Your task to perform on an android device: Clear the shopping cart on ebay. Add apple airpods pro to the cart on ebay, then select checkout. Image 0: 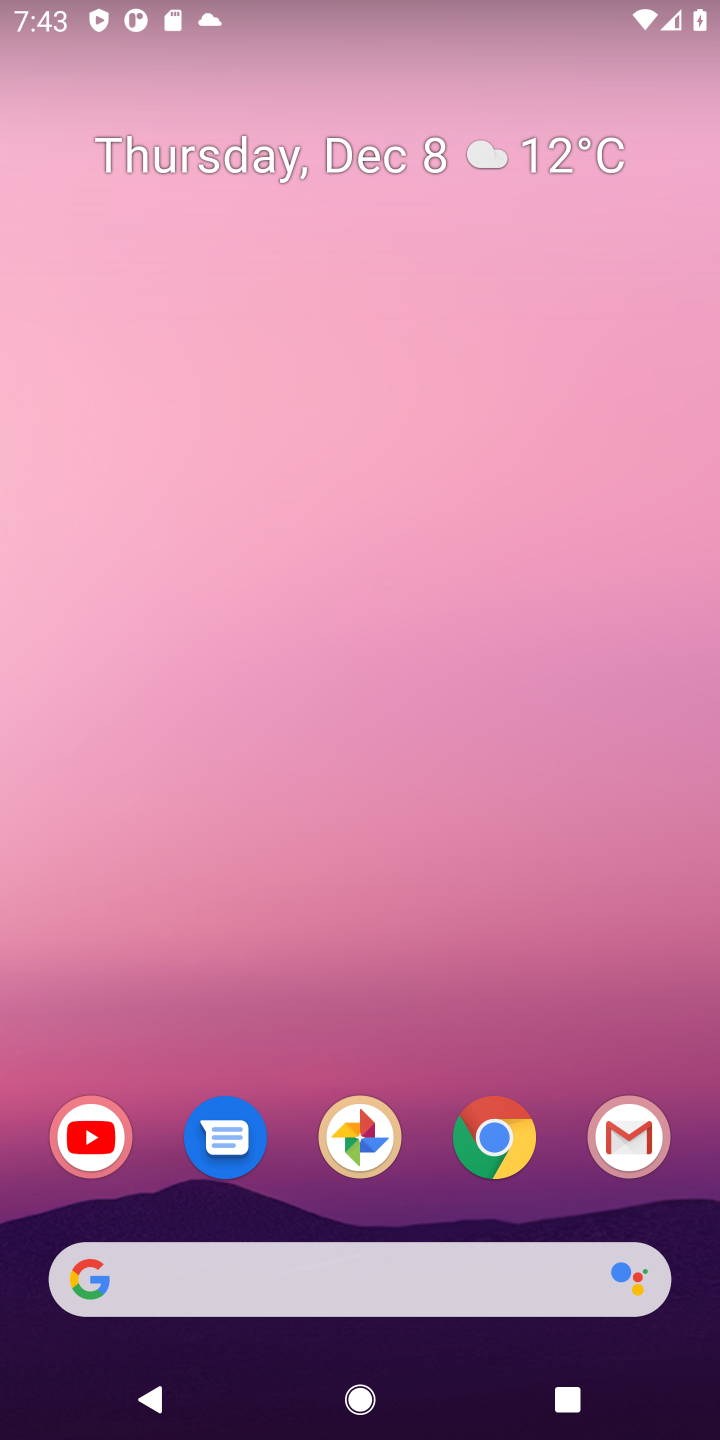
Step 0: click (498, 1168)
Your task to perform on an android device: Clear the shopping cart on ebay. Add apple airpods pro to the cart on ebay, then select checkout. Image 1: 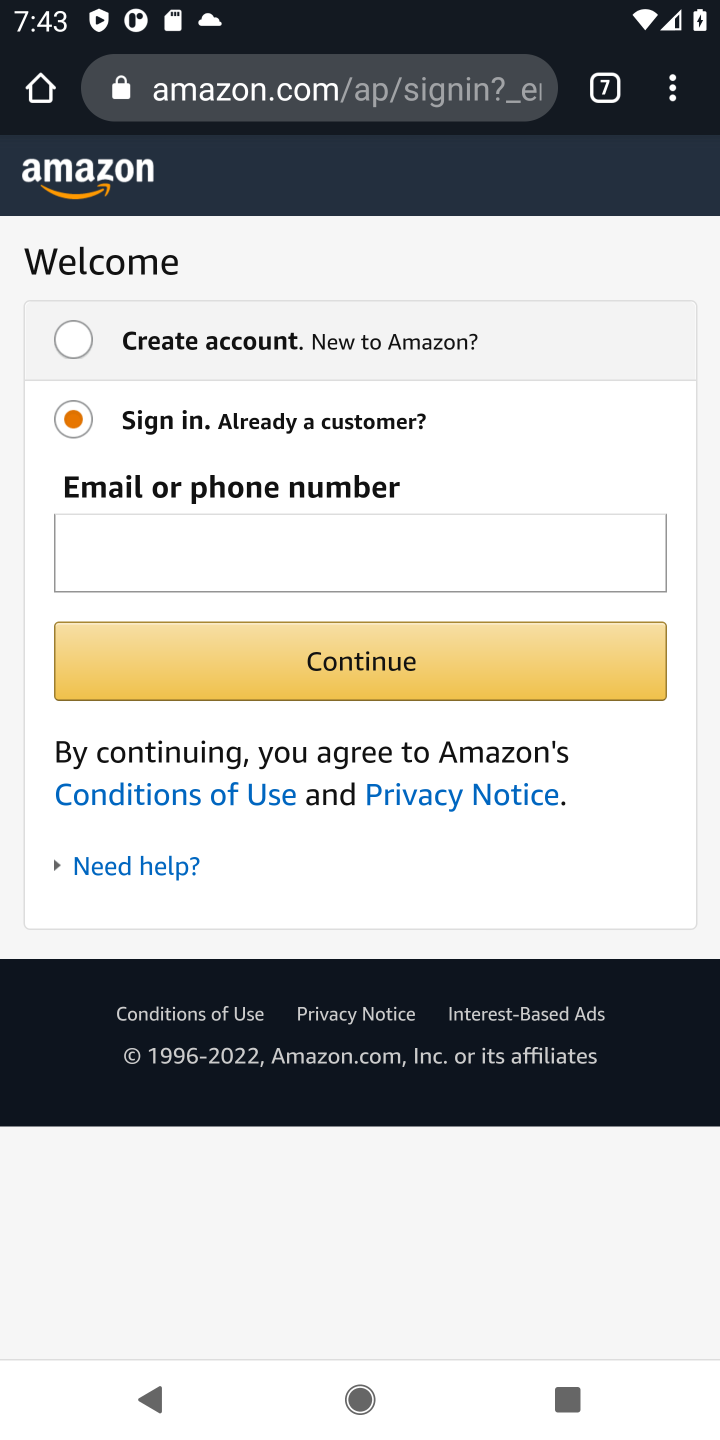
Step 1: press back button
Your task to perform on an android device: Clear the shopping cart on ebay. Add apple airpods pro to the cart on ebay, then select checkout. Image 2: 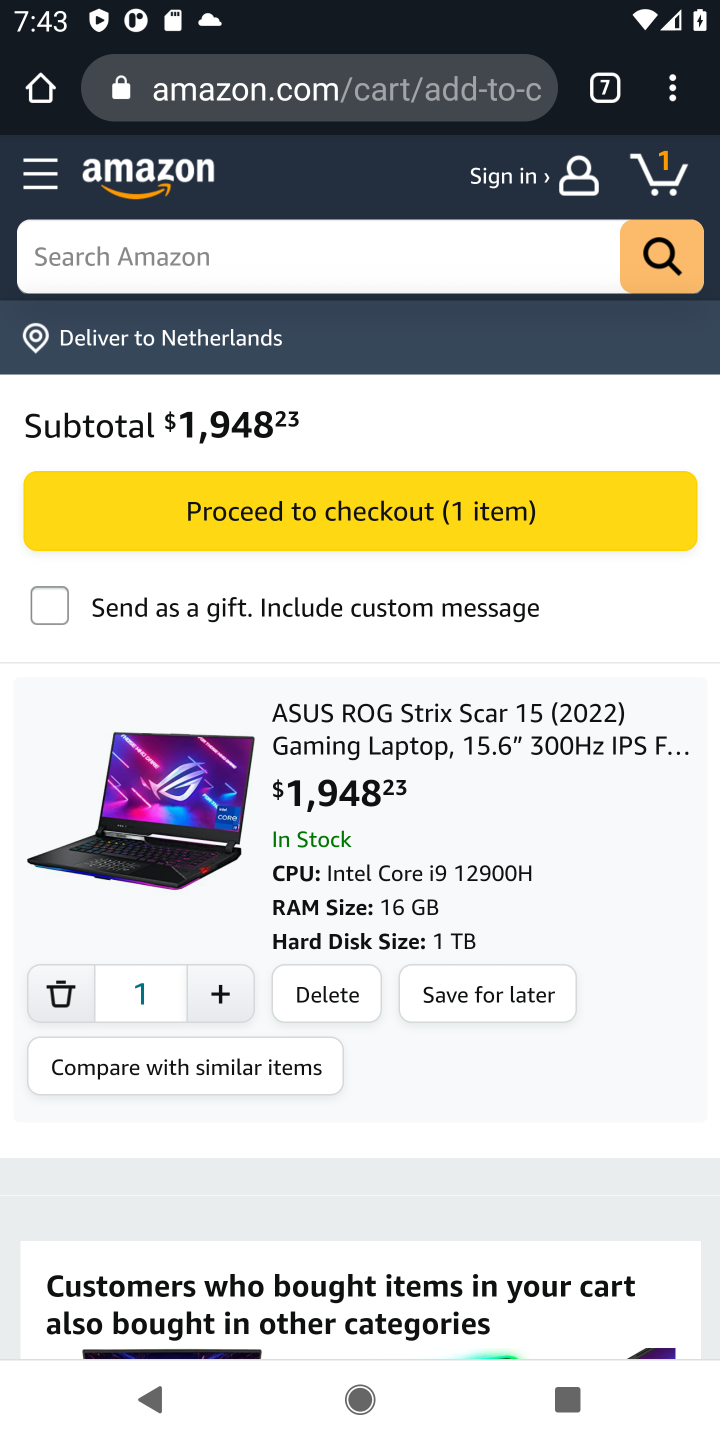
Step 2: click (608, 87)
Your task to perform on an android device: Clear the shopping cart on ebay. Add apple airpods pro to the cart on ebay, then select checkout. Image 3: 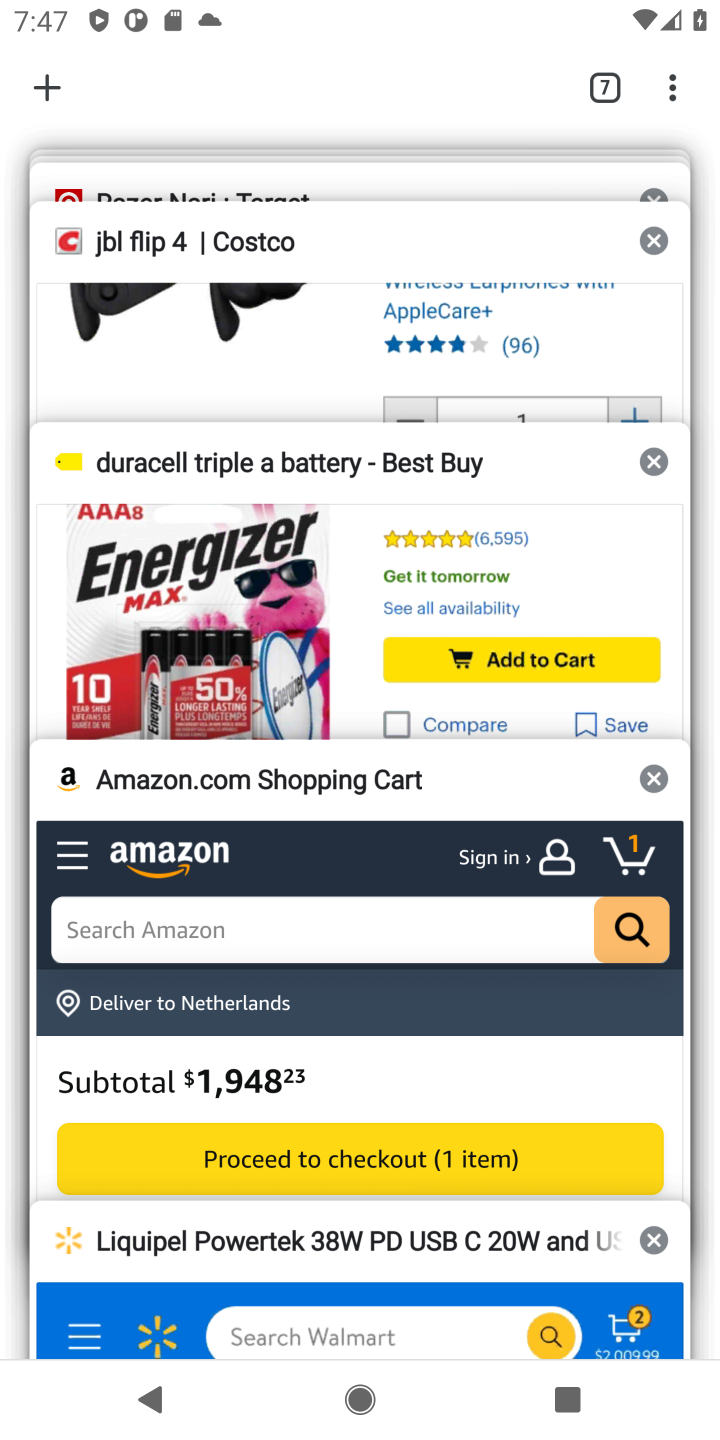
Step 3: click (214, 564)
Your task to perform on an android device: Clear the shopping cart on ebay. Add apple airpods pro to the cart on ebay, then select checkout. Image 4: 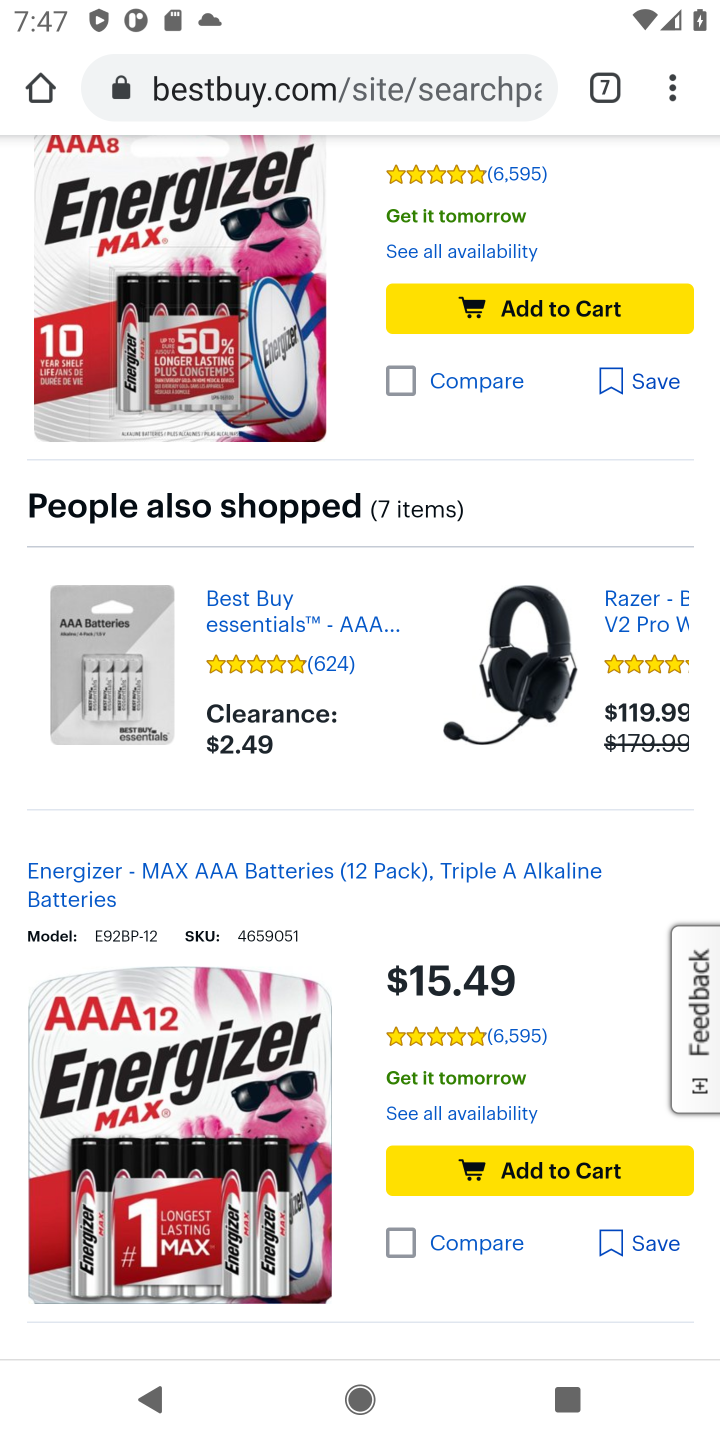
Step 4: click (596, 74)
Your task to perform on an android device: Clear the shopping cart on ebay. Add apple airpods pro to the cart on ebay, then select checkout. Image 5: 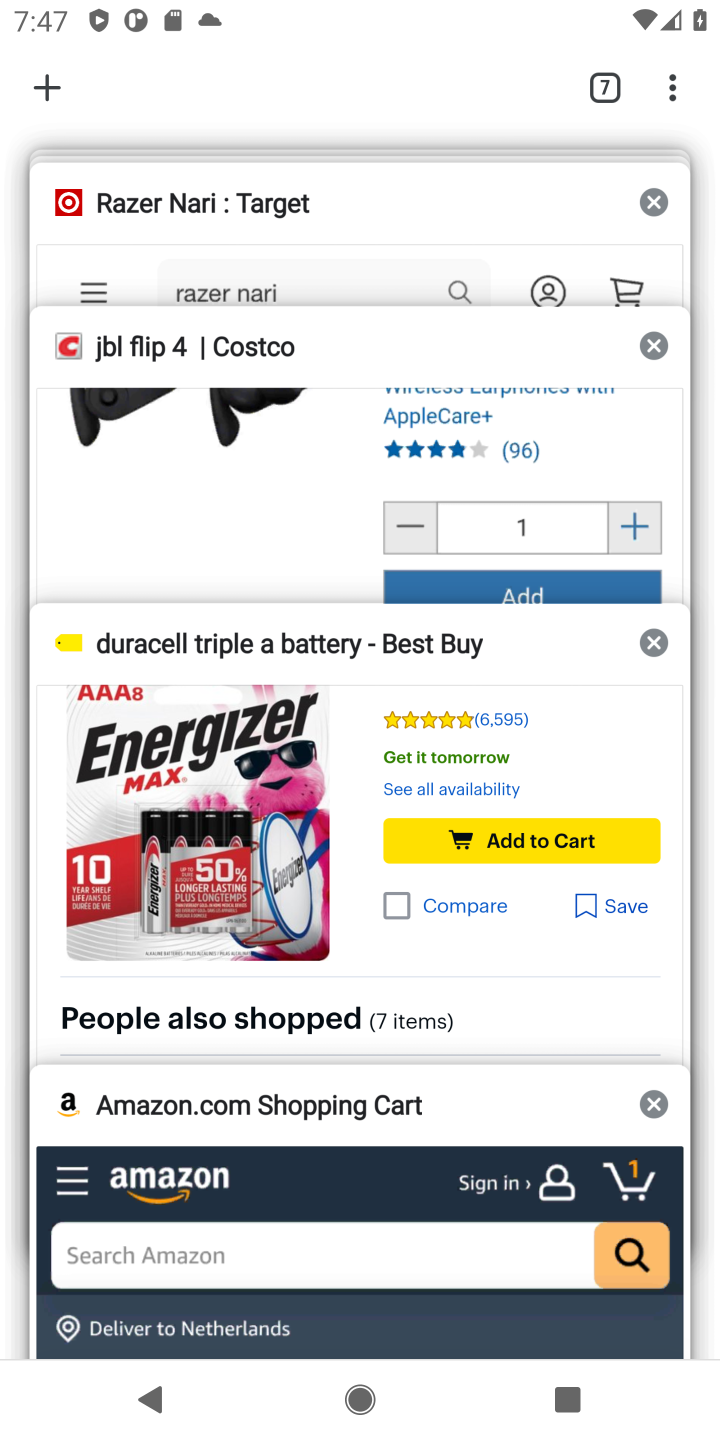
Step 5: click (363, 243)
Your task to perform on an android device: Clear the shopping cart on ebay. Add apple airpods pro to the cart on ebay, then select checkout. Image 6: 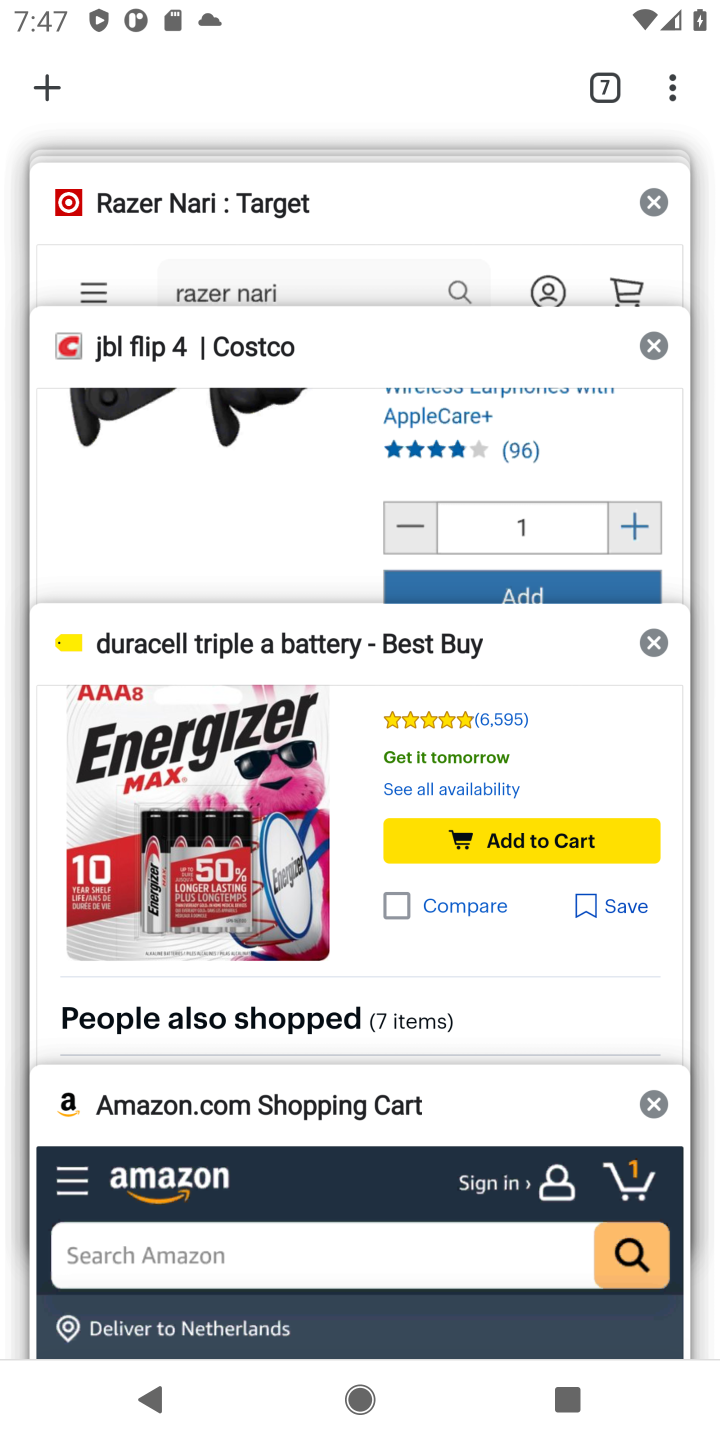
Step 6: drag from (363, 243) to (284, 1003)
Your task to perform on an android device: Clear the shopping cart on ebay. Add apple airpods pro to the cart on ebay, then select checkout. Image 7: 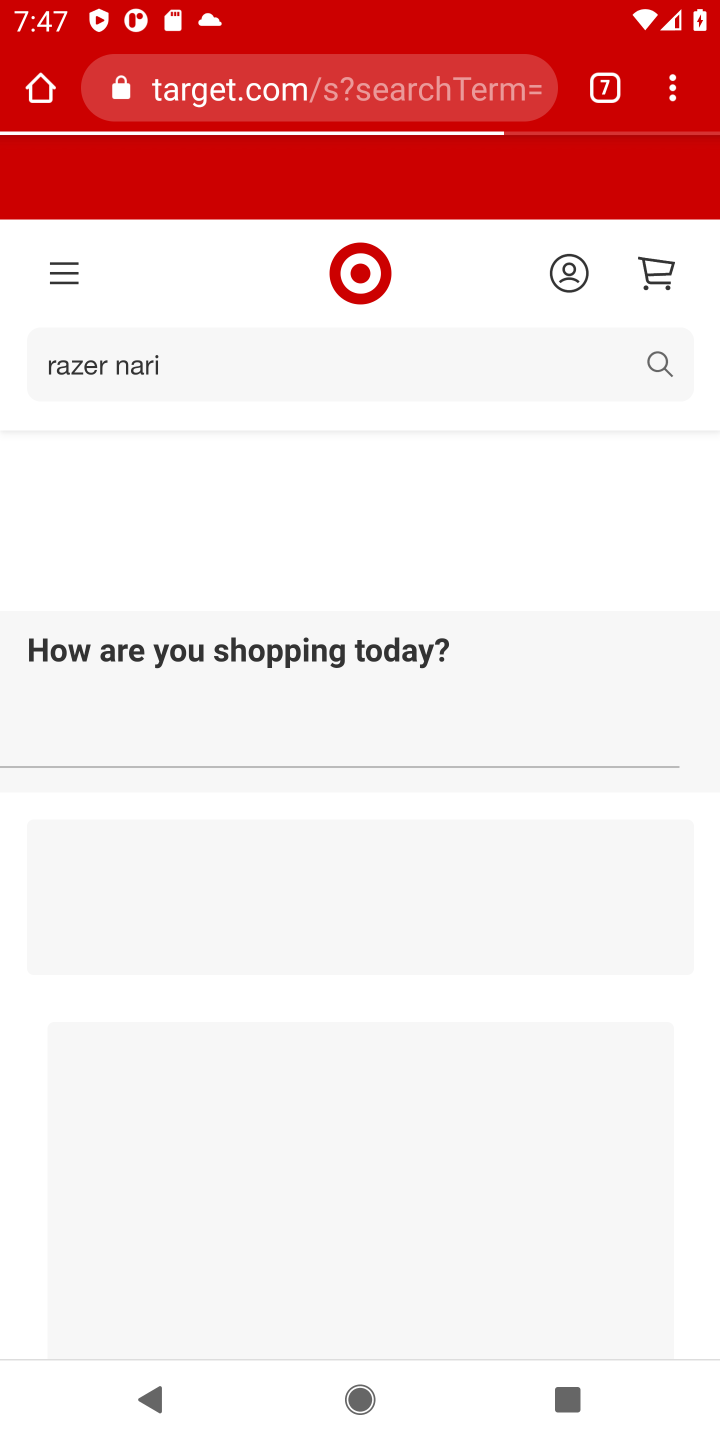
Step 7: click (612, 84)
Your task to perform on an android device: Clear the shopping cart on ebay. Add apple airpods pro to the cart on ebay, then select checkout. Image 8: 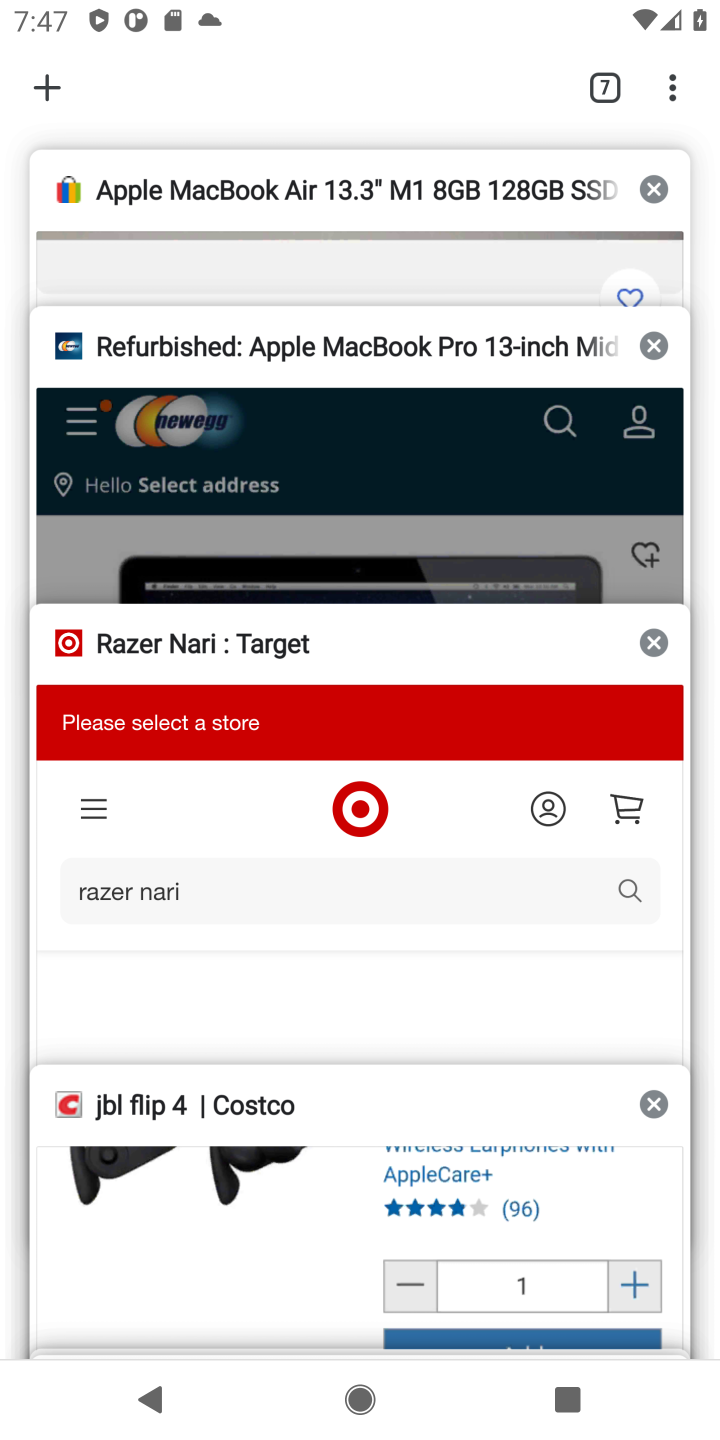
Step 8: click (436, 244)
Your task to perform on an android device: Clear the shopping cart on ebay. Add apple airpods pro to the cart on ebay, then select checkout. Image 9: 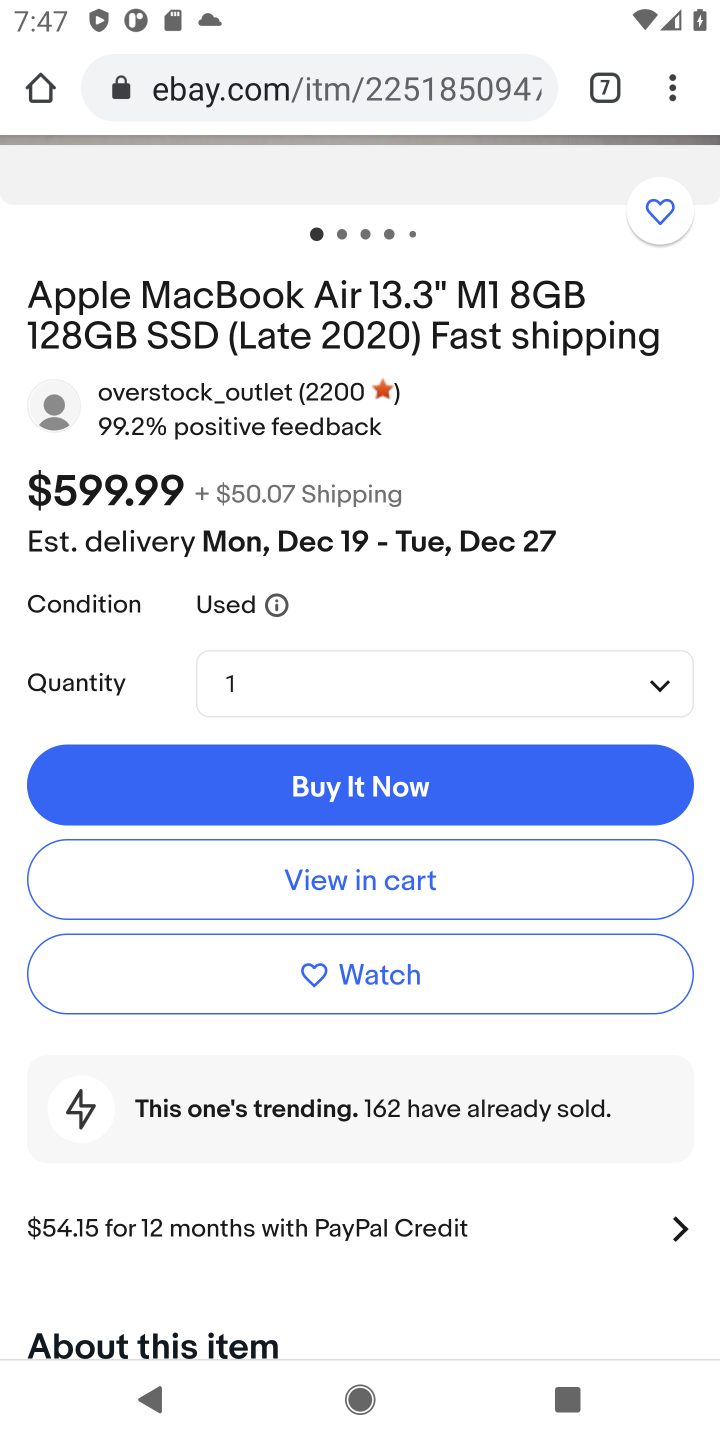
Step 9: click (396, 875)
Your task to perform on an android device: Clear the shopping cart on ebay. Add apple airpods pro to the cart on ebay, then select checkout. Image 10: 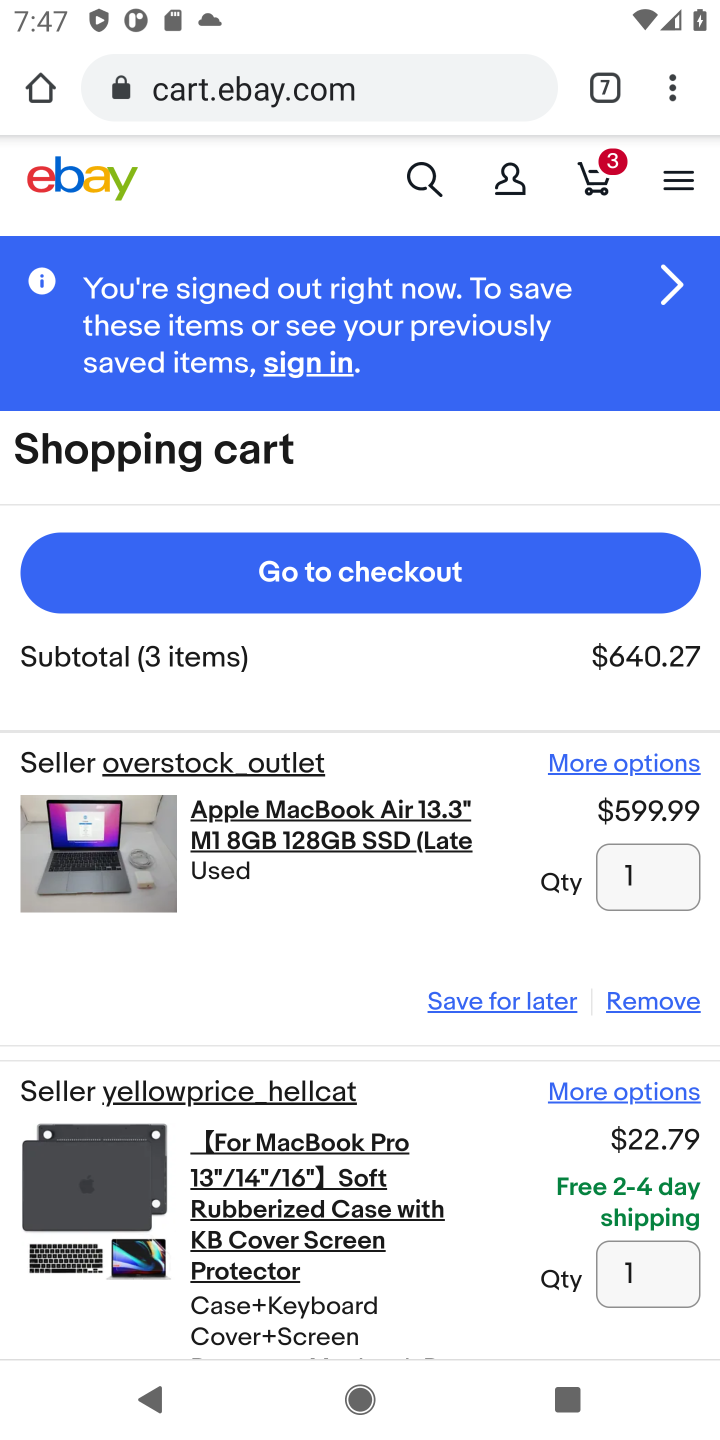
Step 10: click (648, 995)
Your task to perform on an android device: Clear the shopping cart on ebay. Add apple airpods pro to the cart on ebay, then select checkout. Image 11: 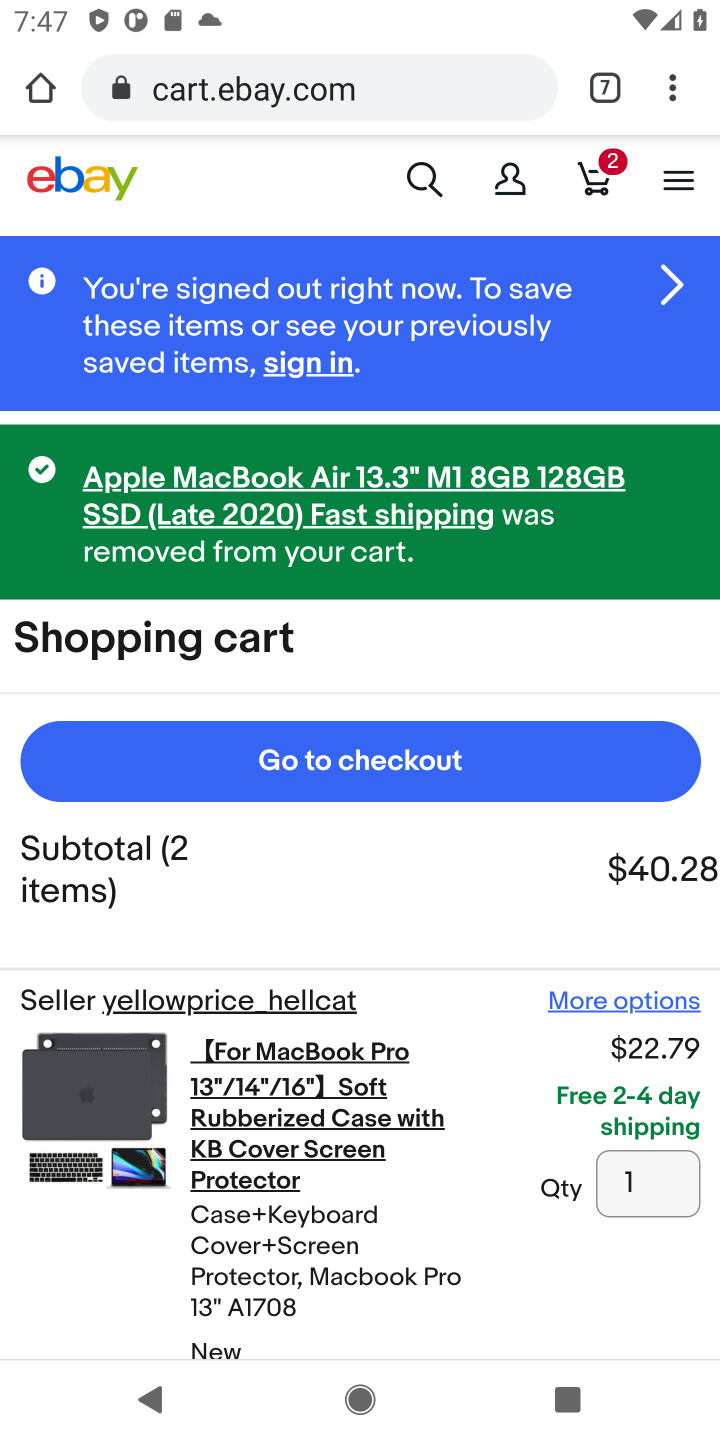
Step 11: drag from (594, 1235) to (648, 762)
Your task to perform on an android device: Clear the shopping cart on ebay. Add apple airpods pro to the cart on ebay, then select checkout. Image 12: 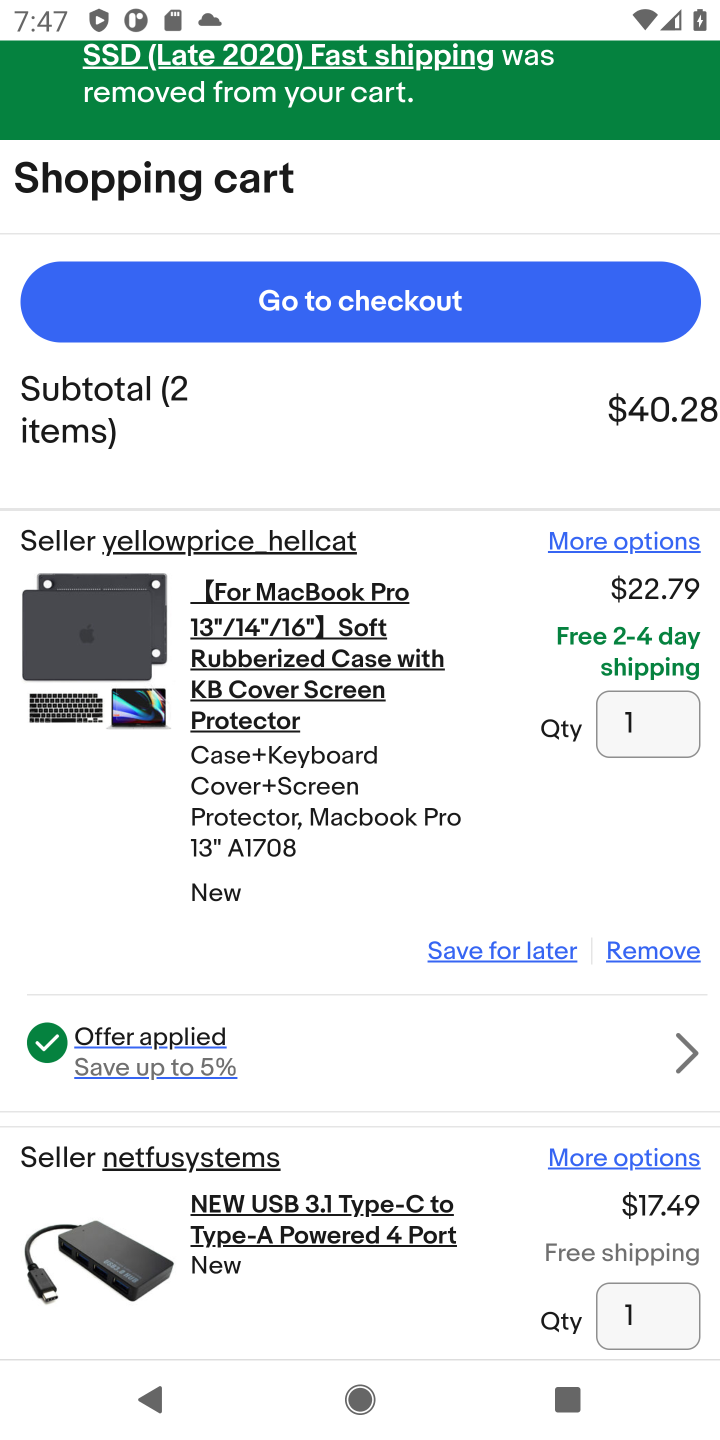
Step 12: click (638, 954)
Your task to perform on an android device: Clear the shopping cart on ebay. Add apple airpods pro to the cart on ebay, then select checkout. Image 13: 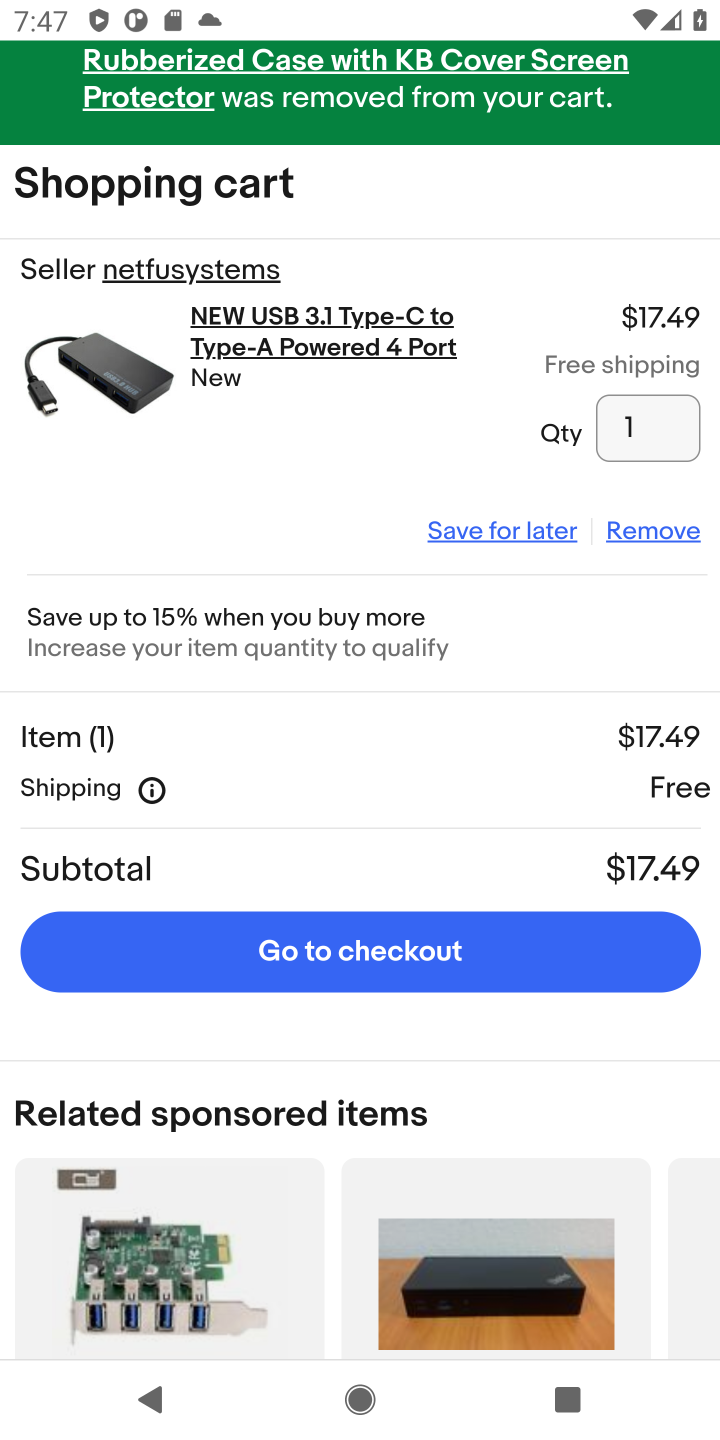
Step 13: click (642, 532)
Your task to perform on an android device: Clear the shopping cart on ebay. Add apple airpods pro to the cart on ebay, then select checkout. Image 14: 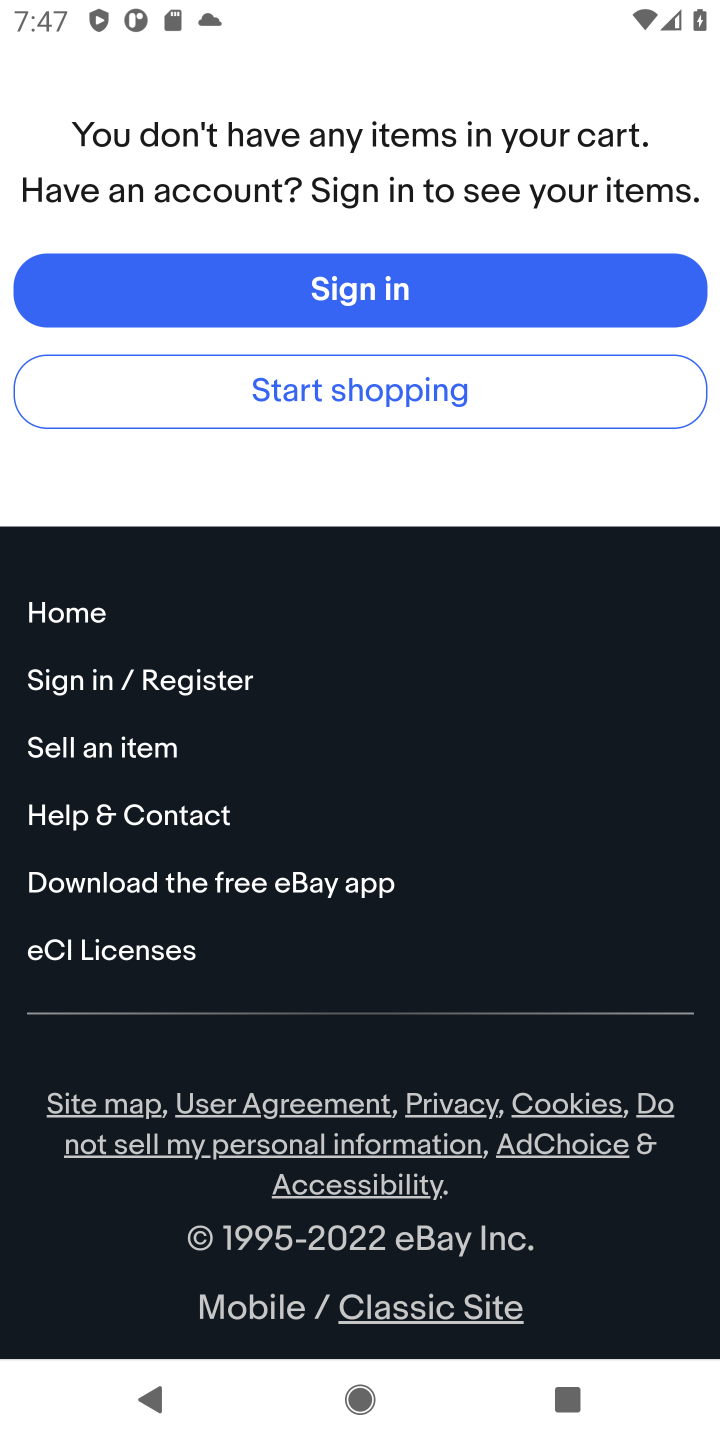
Step 14: click (369, 394)
Your task to perform on an android device: Clear the shopping cart on ebay. Add apple airpods pro to the cart on ebay, then select checkout. Image 15: 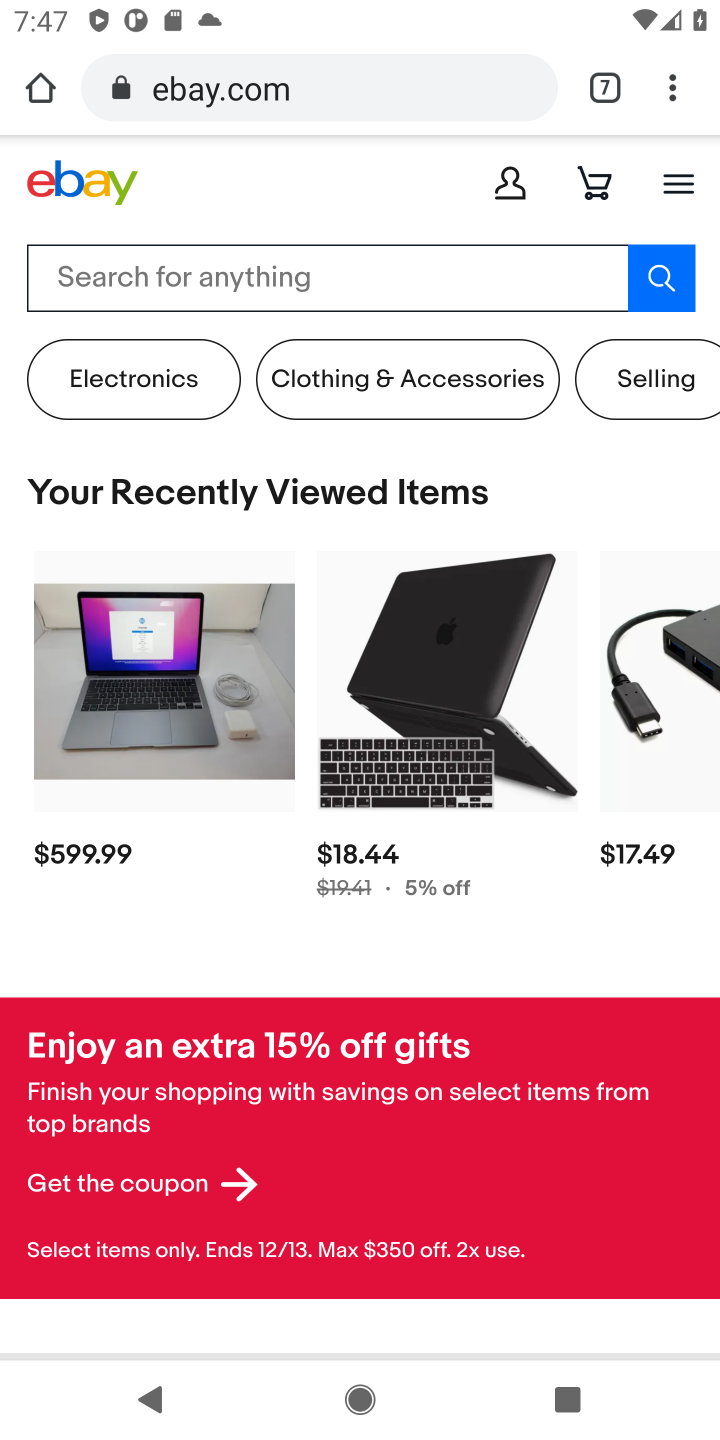
Step 15: click (284, 265)
Your task to perform on an android device: Clear the shopping cart on ebay. Add apple airpods pro to the cart on ebay, then select checkout. Image 16: 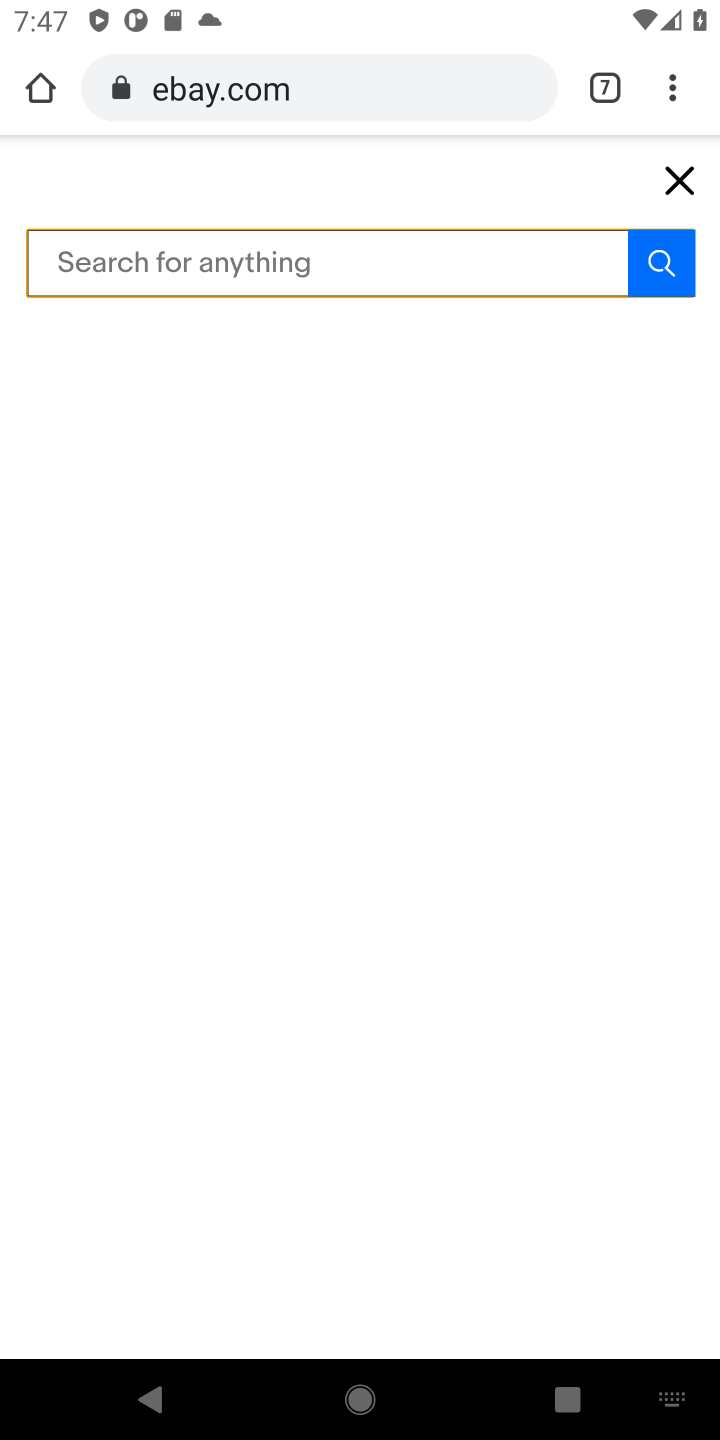
Step 16: type "apple airpods pro"
Your task to perform on an android device: Clear the shopping cart on ebay. Add apple airpods pro to the cart on ebay, then select checkout. Image 17: 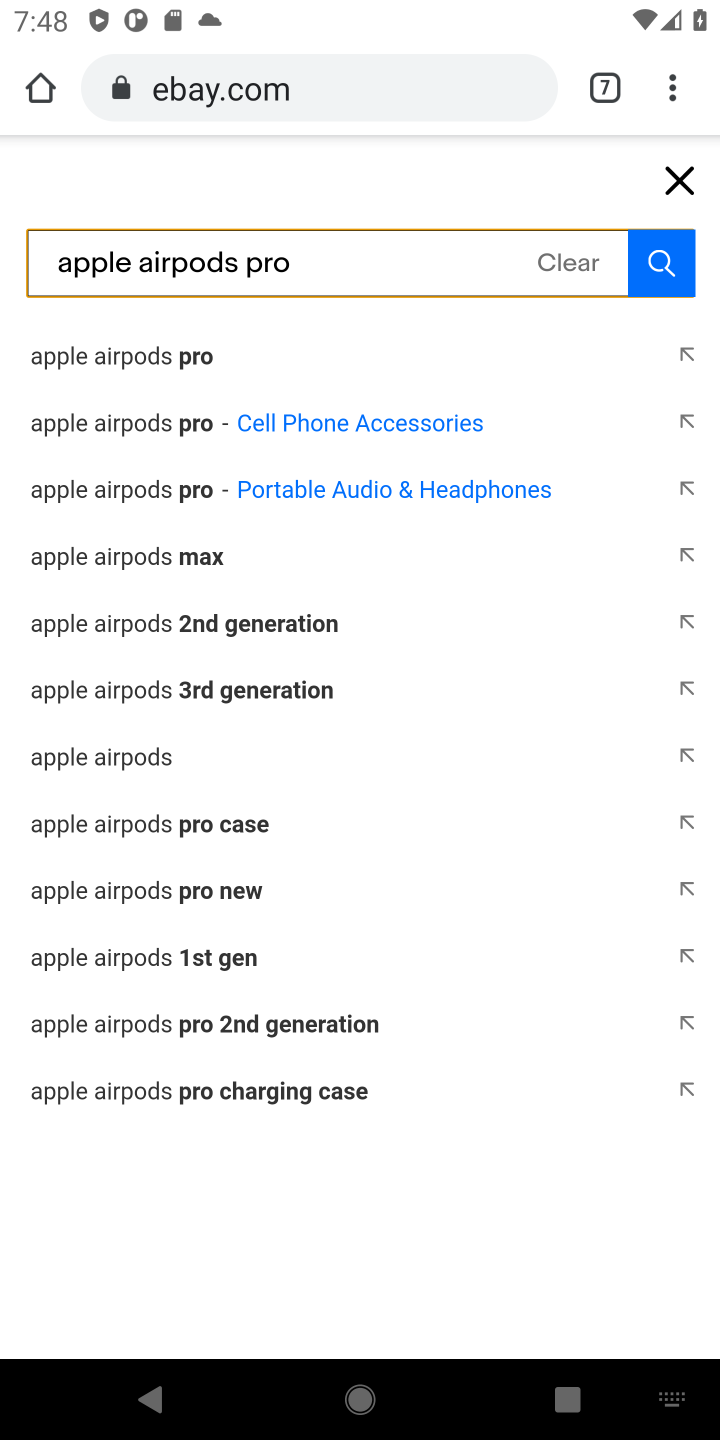
Step 17: click (142, 417)
Your task to perform on an android device: Clear the shopping cart on ebay. Add apple airpods pro to the cart on ebay, then select checkout. Image 18: 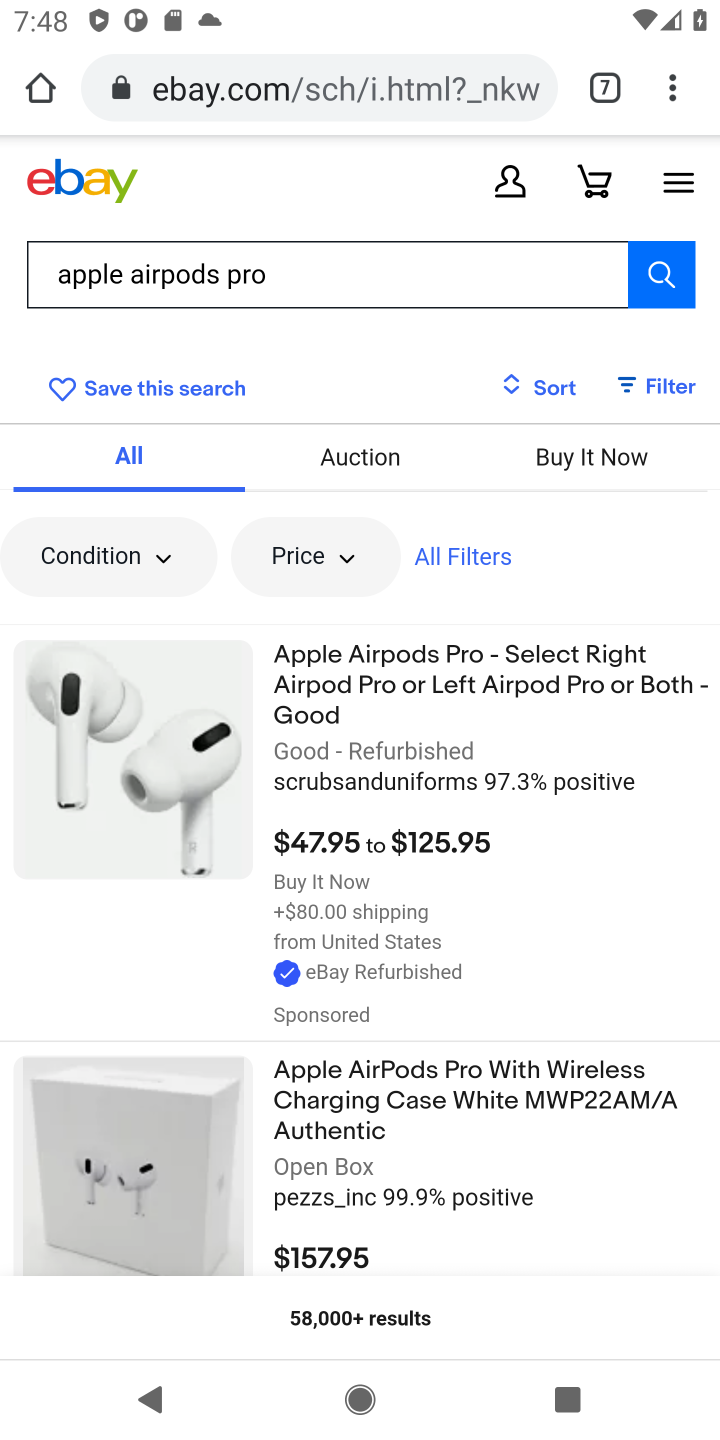
Step 18: click (467, 678)
Your task to perform on an android device: Clear the shopping cart on ebay. Add apple airpods pro to the cart on ebay, then select checkout. Image 19: 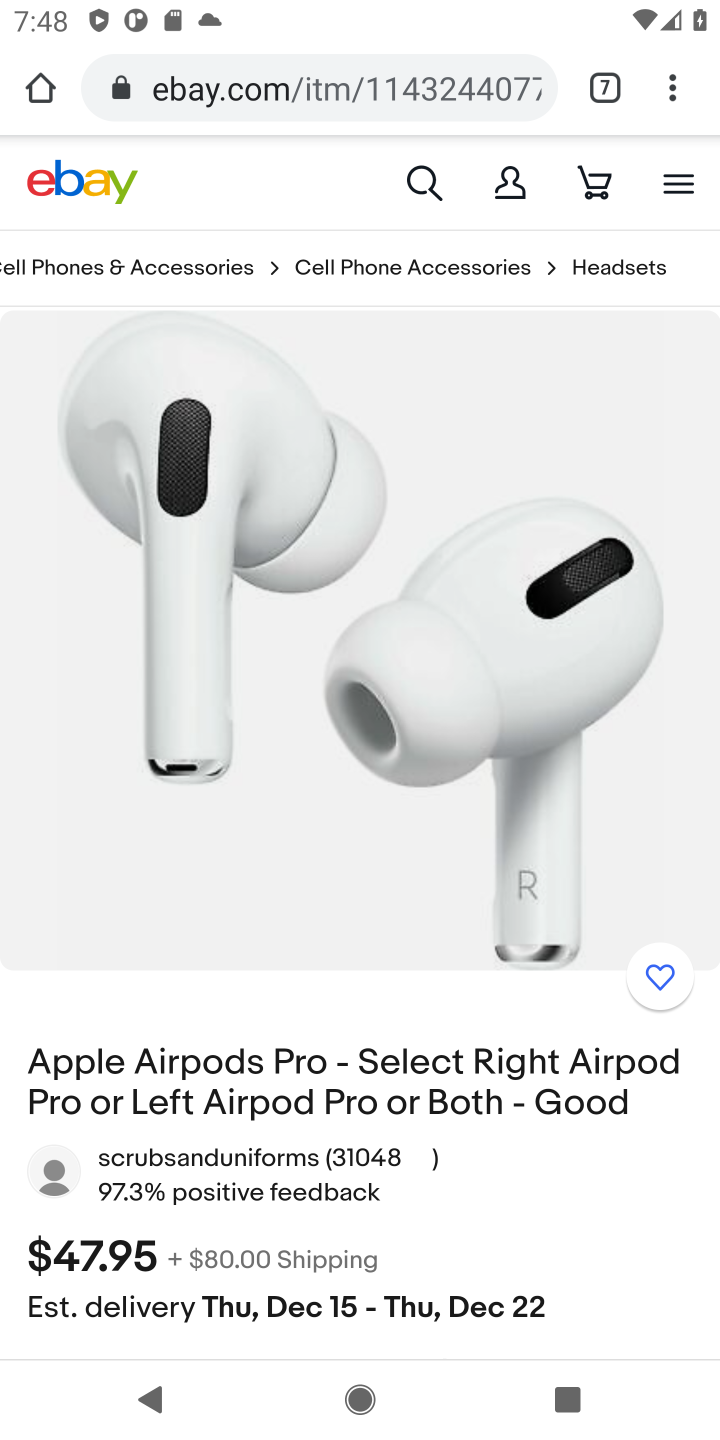
Step 19: drag from (325, 1147) to (410, 457)
Your task to perform on an android device: Clear the shopping cart on ebay. Add apple airpods pro to the cart on ebay, then select checkout. Image 20: 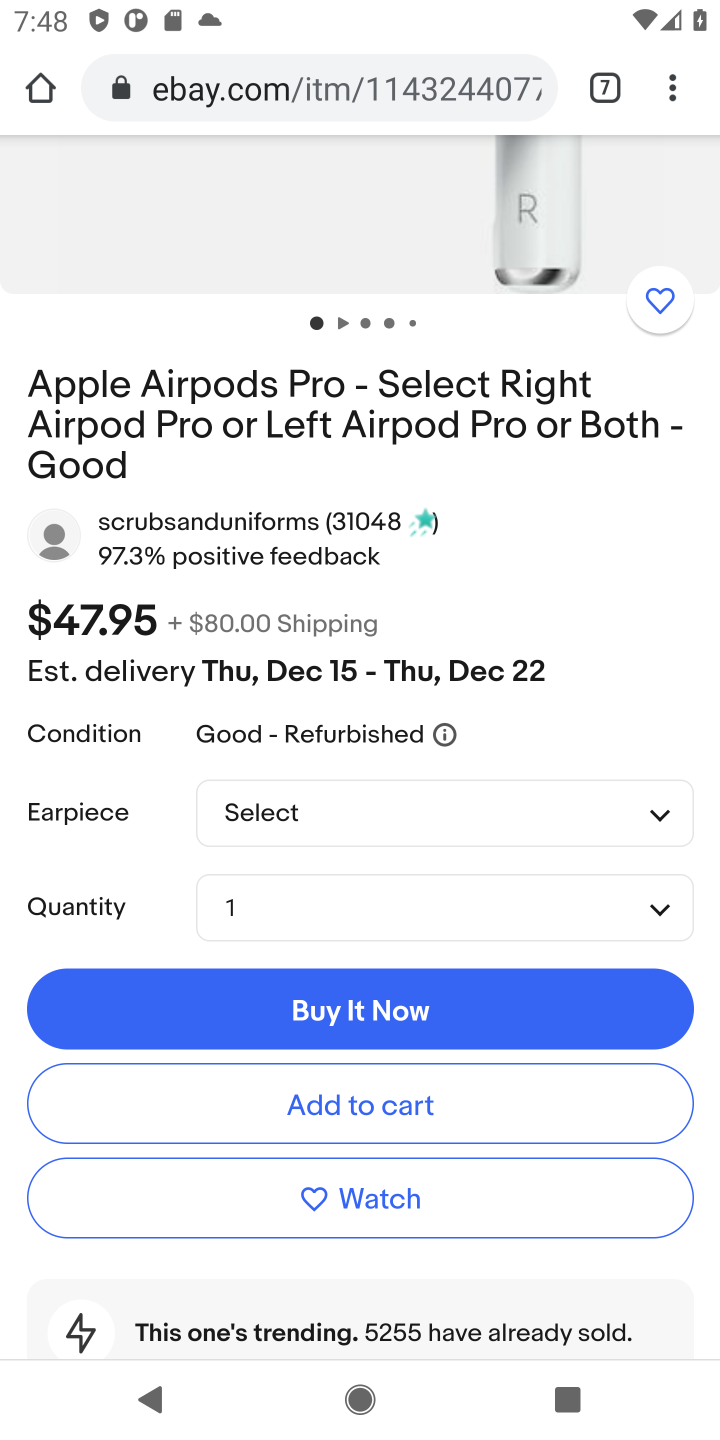
Step 20: click (395, 1098)
Your task to perform on an android device: Clear the shopping cart on ebay. Add apple airpods pro to the cart on ebay, then select checkout. Image 21: 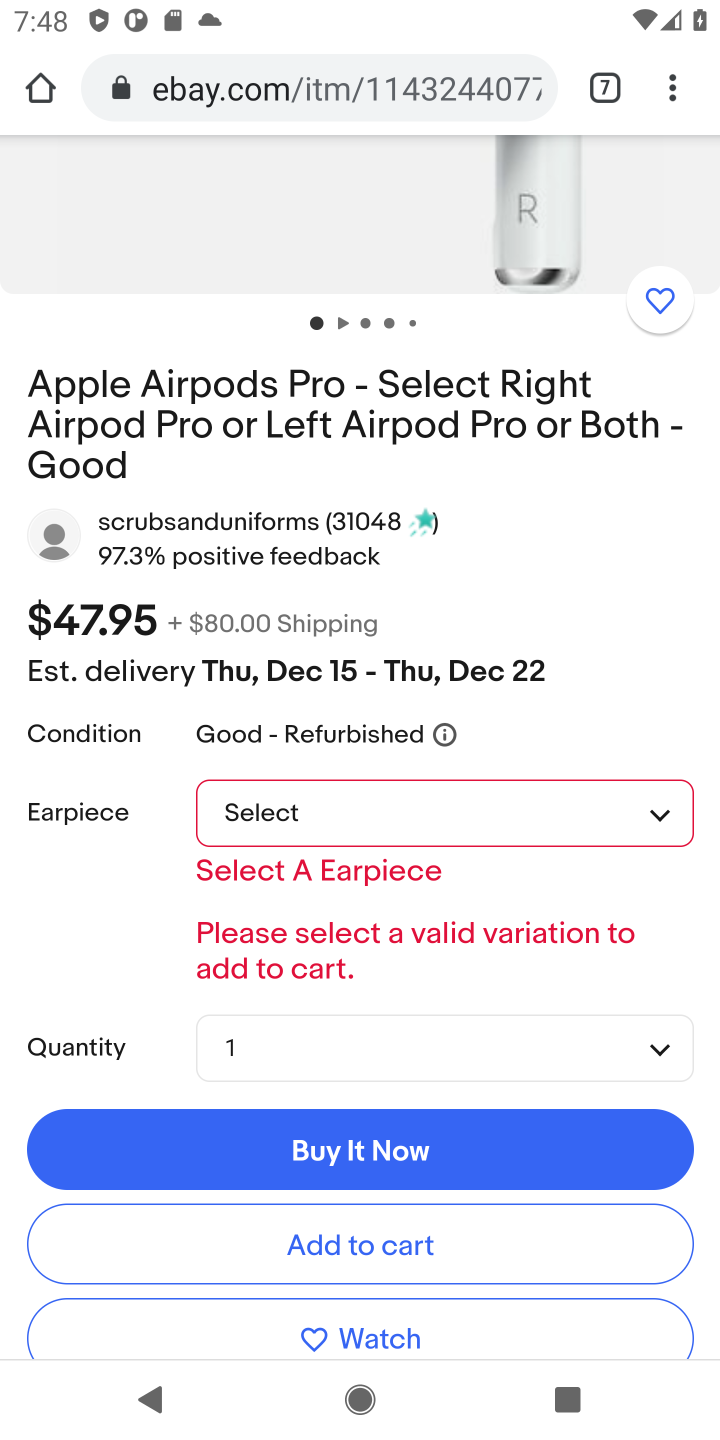
Step 21: click (657, 818)
Your task to perform on an android device: Clear the shopping cart on ebay. Add apple airpods pro to the cart on ebay, then select checkout. Image 22: 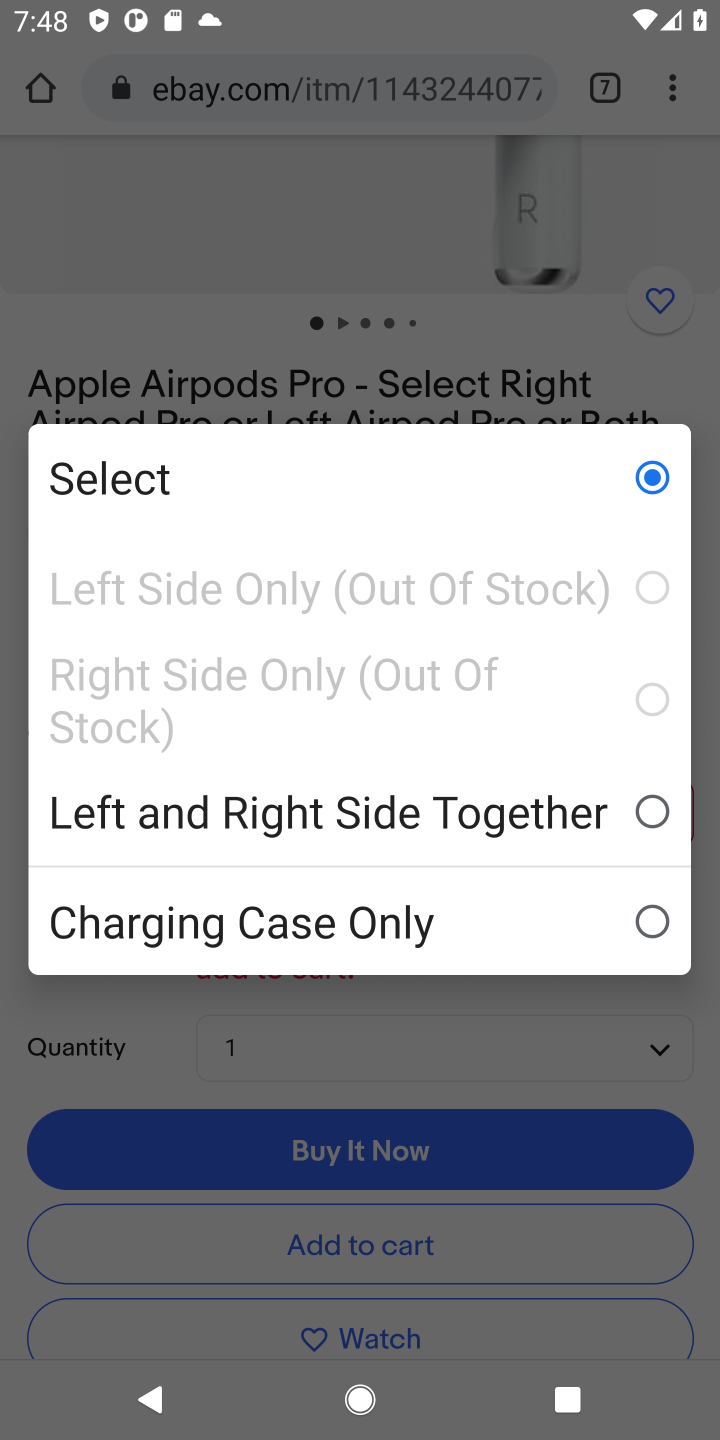
Step 22: click (646, 804)
Your task to perform on an android device: Clear the shopping cart on ebay. Add apple airpods pro to the cart on ebay, then select checkout. Image 23: 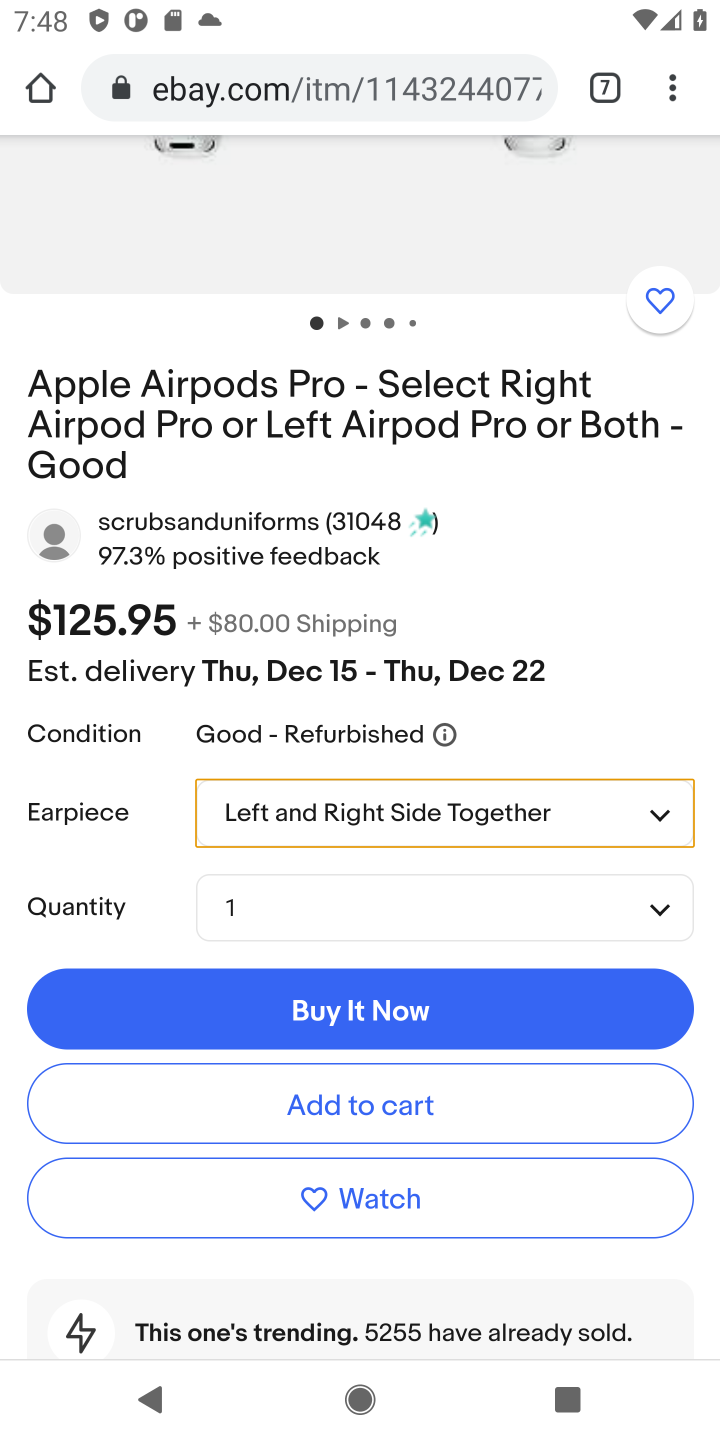
Step 23: click (384, 1104)
Your task to perform on an android device: Clear the shopping cart on ebay. Add apple airpods pro to the cart on ebay, then select checkout. Image 24: 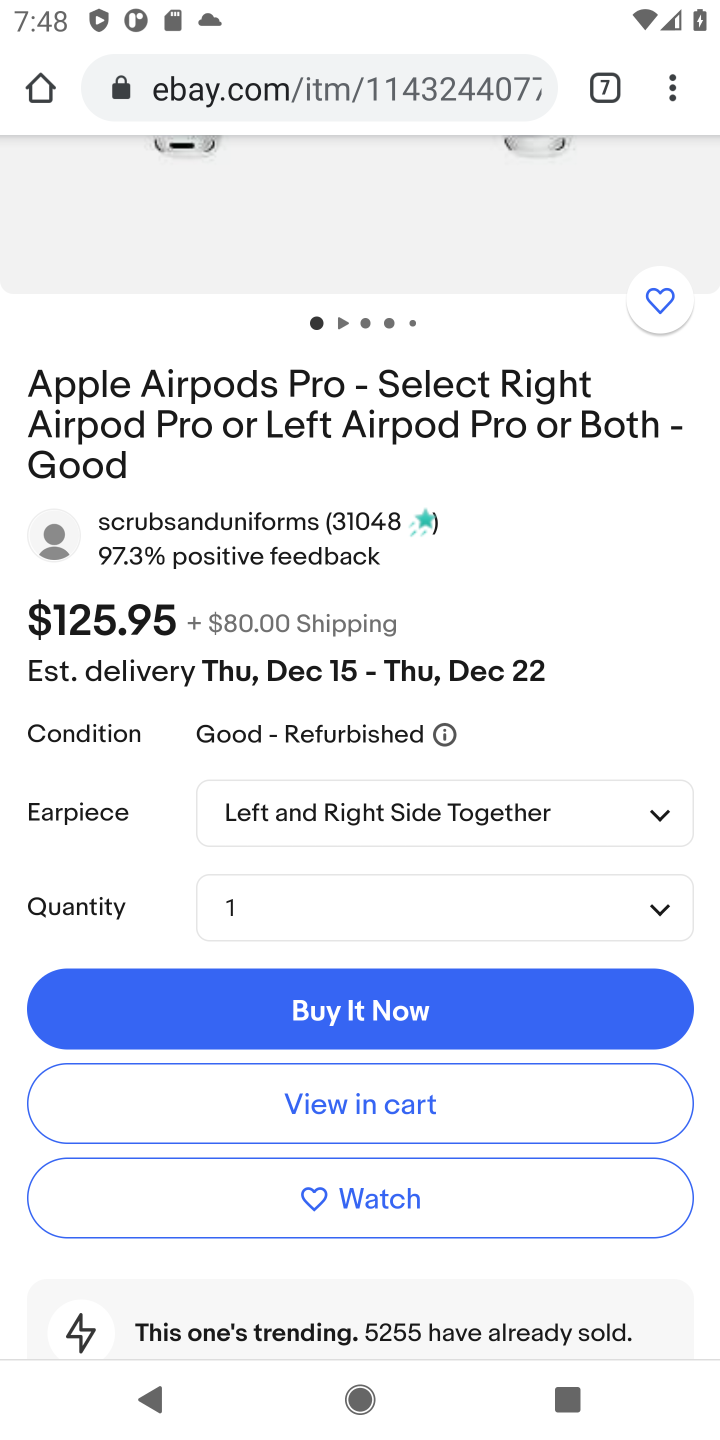
Step 24: task complete